Your task to perform on an android device: Open display settings Image 0: 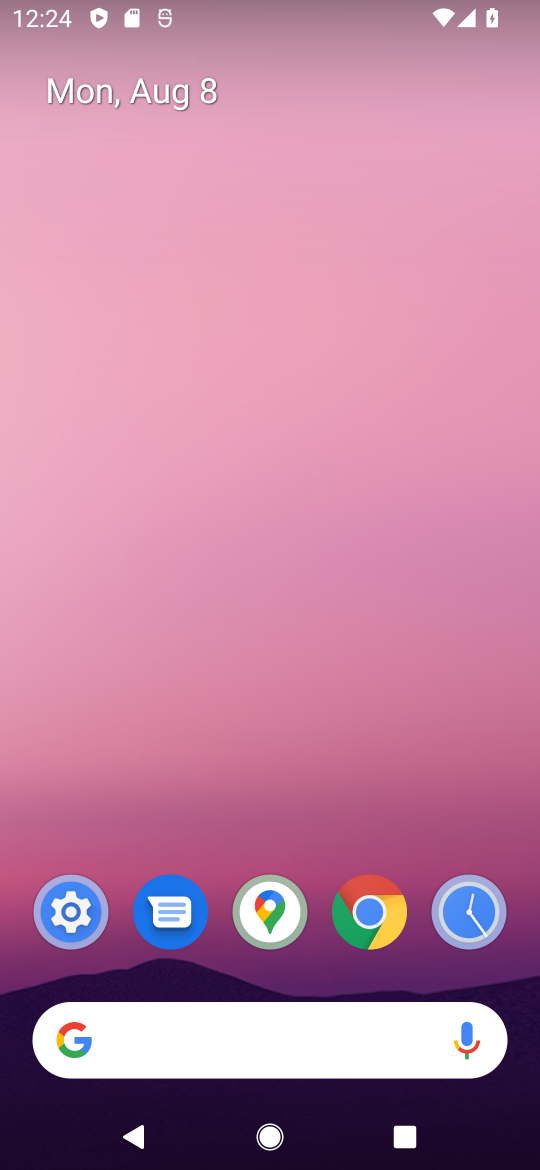
Step 0: click (76, 892)
Your task to perform on an android device: Open display settings Image 1: 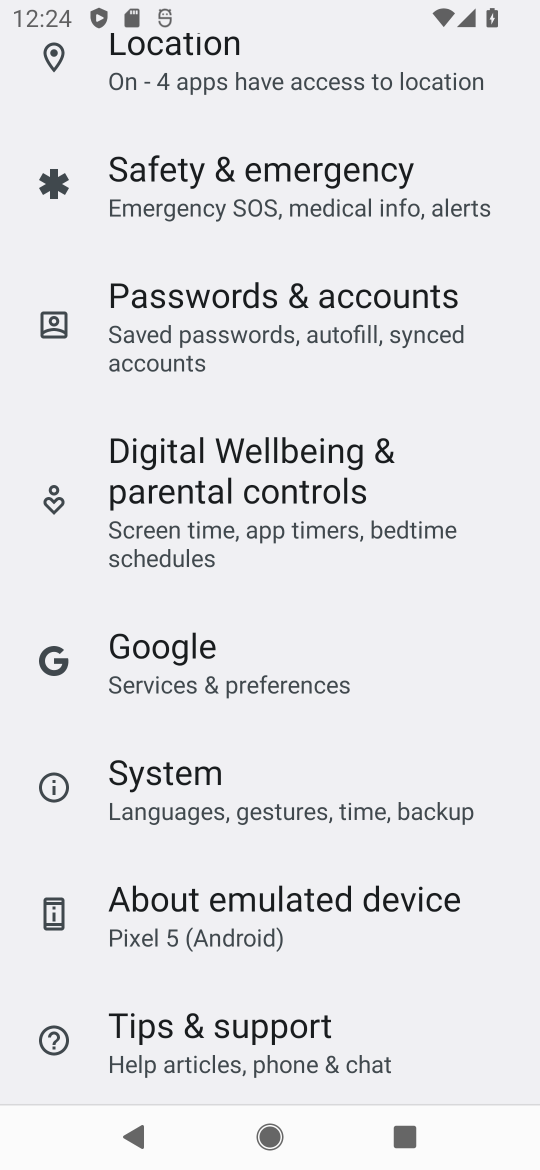
Step 1: drag from (365, 111) to (288, 1129)
Your task to perform on an android device: Open display settings Image 2: 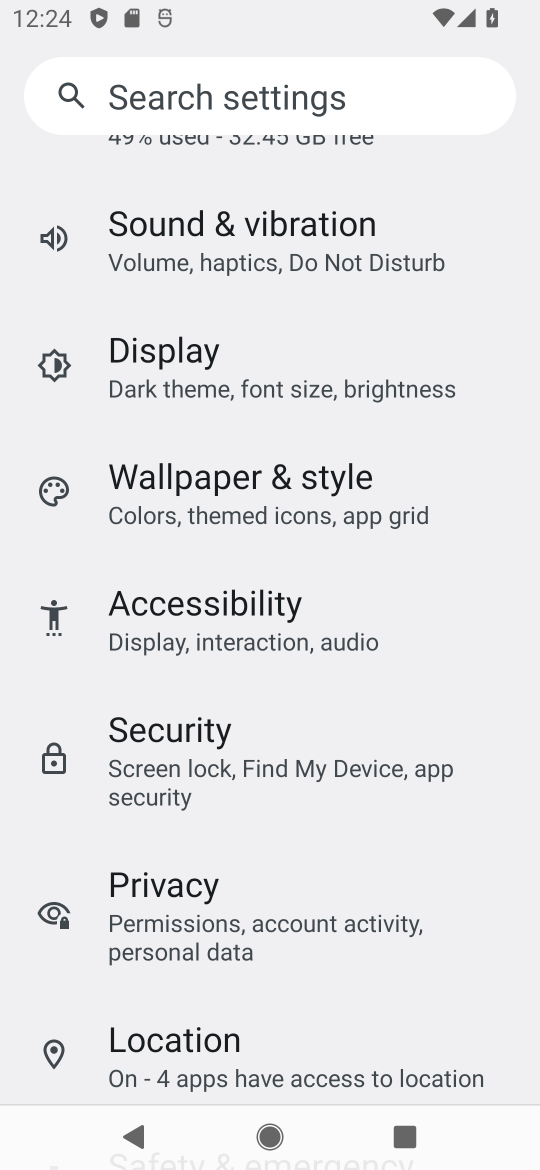
Step 2: click (186, 381)
Your task to perform on an android device: Open display settings Image 3: 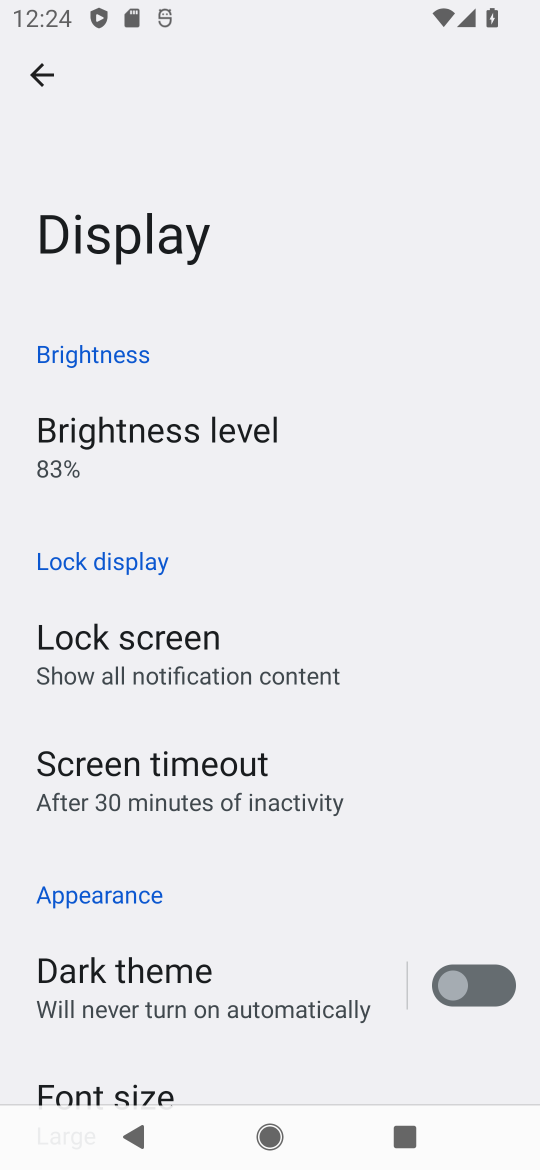
Step 3: task complete